Your task to perform on an android device: Go to location settings Image 0: 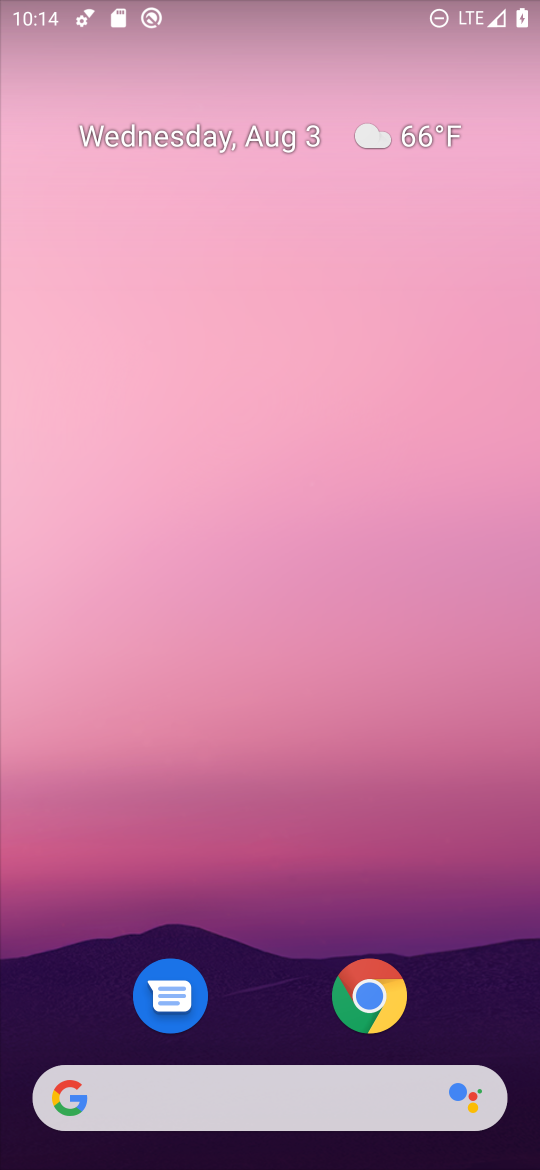
Step 0: drag from (305, 826) to (337, 7)
Your task to perform on an android device: Go to location settings Image 1: 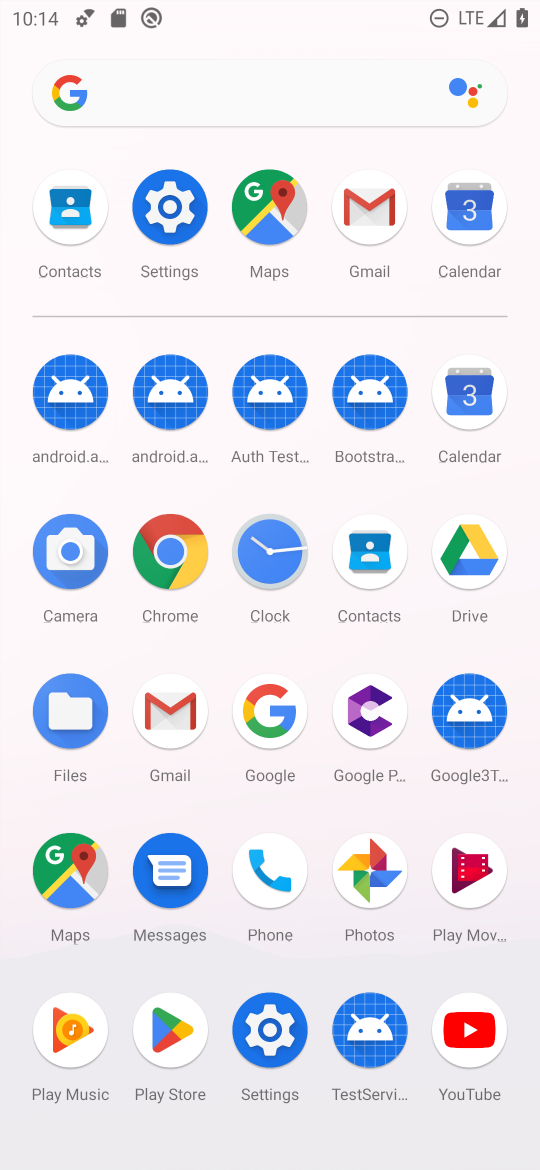
Step 1: click (174, 207)
Your task to perform on an android device: Go to location settings Image 2: 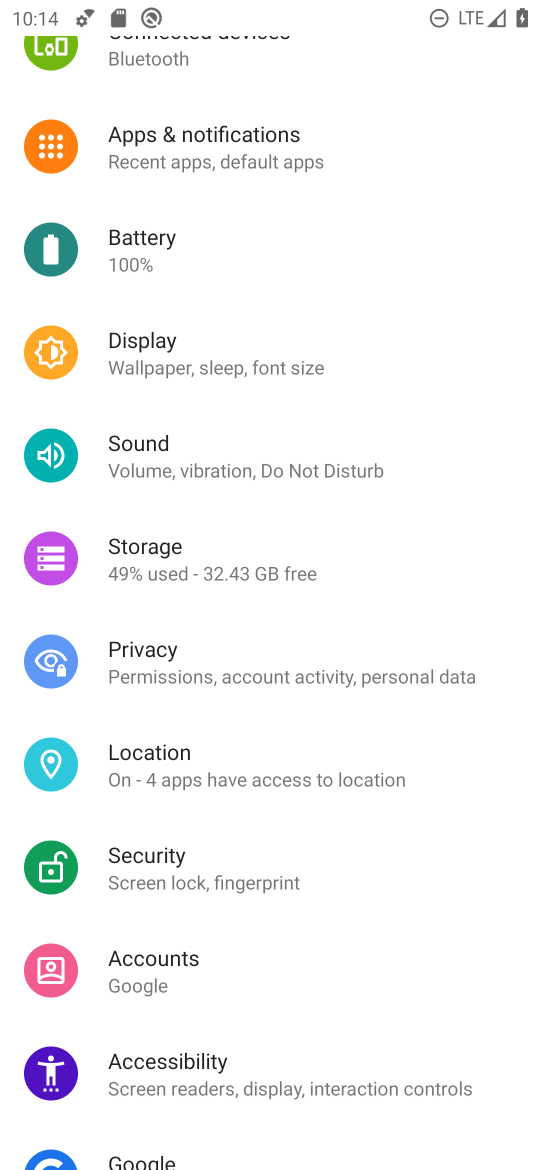
Step 2: click (226, 770)
Your task to perform on an android device: Go to location settings Image 3: 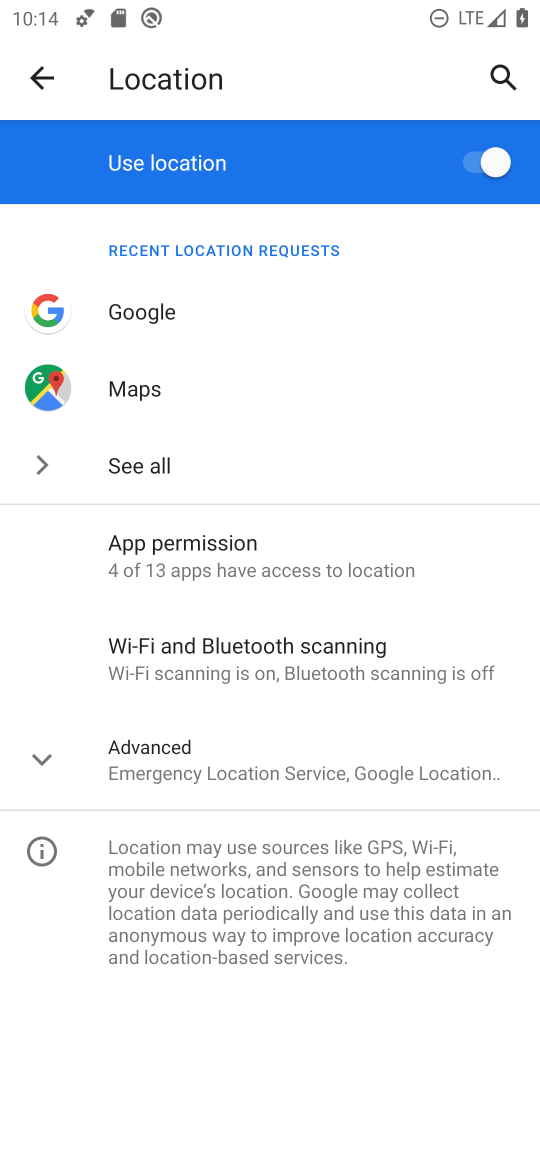
Step 3: task complete